Your task to perform on an android device: star an email in the gmail app Image 0: 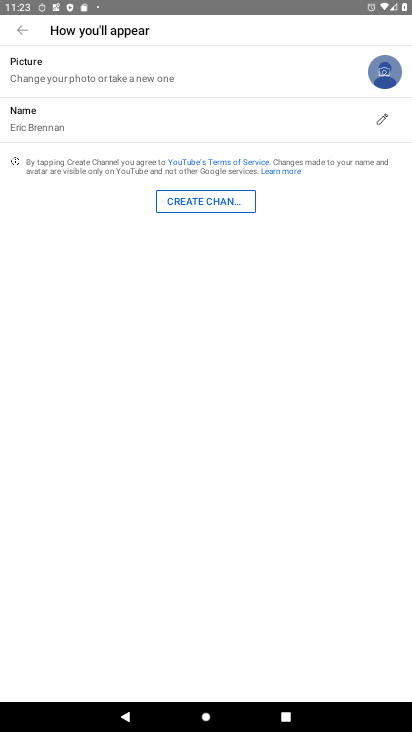
Step 0: press home button
Your task to perform on an android device: star an email in the gmail app Image 1: 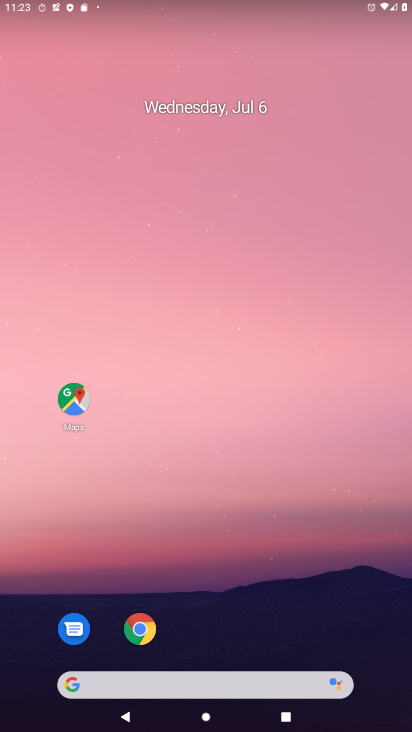
Step 1: drag from (205, 642) to (191, 104)
Your task to perform on an android device: star an email in the gmail app Image 2: 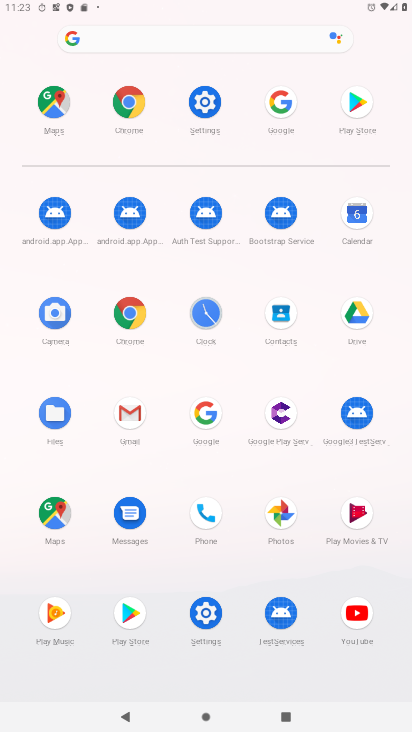
Step 2: click (130, 418)
Your task to perform on an android device: star an email in the gmail app Image 3: 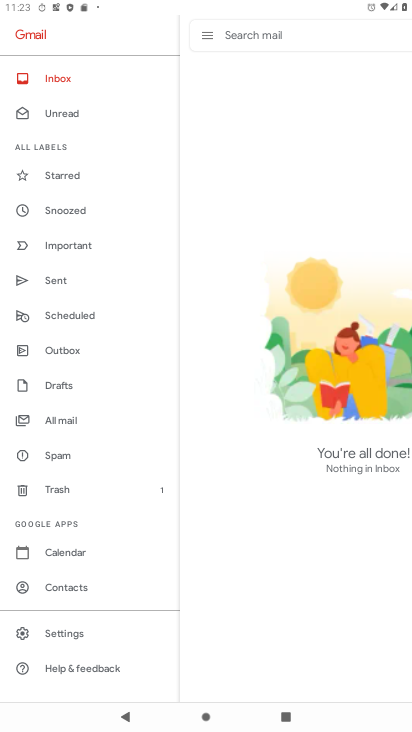
Step 3: click (68, 421)
Your task to perform on an android device: star an email in the gmail app Image 4: 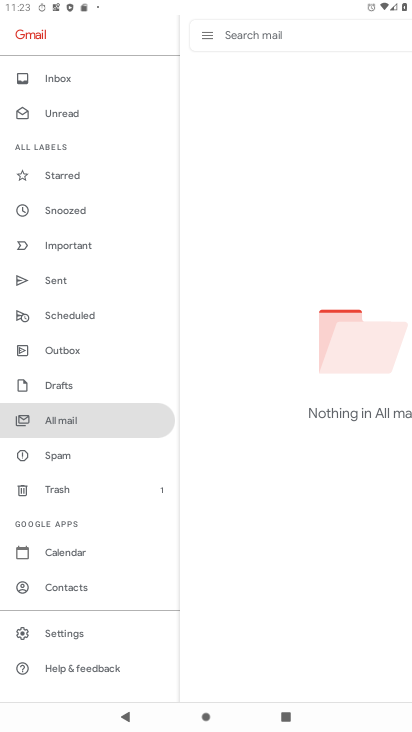
Step 4: task complete